Your task to perform on an android device: turn off location Image 0: 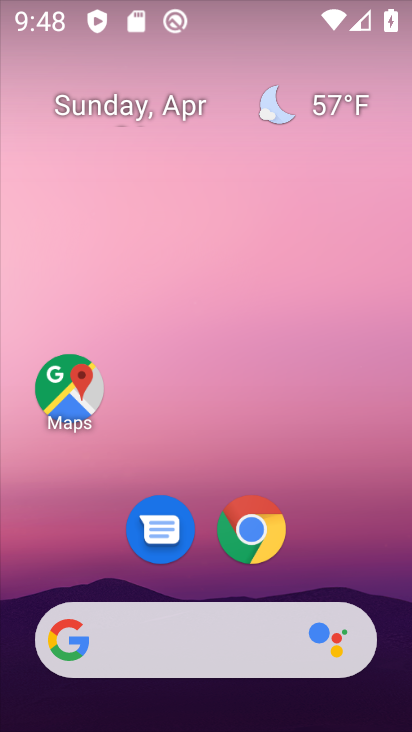
Step 0: drag from (322, 569) to (213, 69)
Your task to perform on an android device: turn off location Image 1: 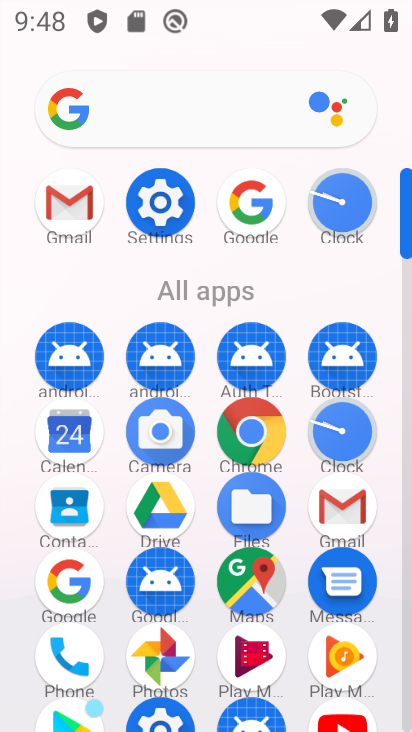
Step 1: click (166, 213)
Your task to perform on an android device: turn off location Image 2: 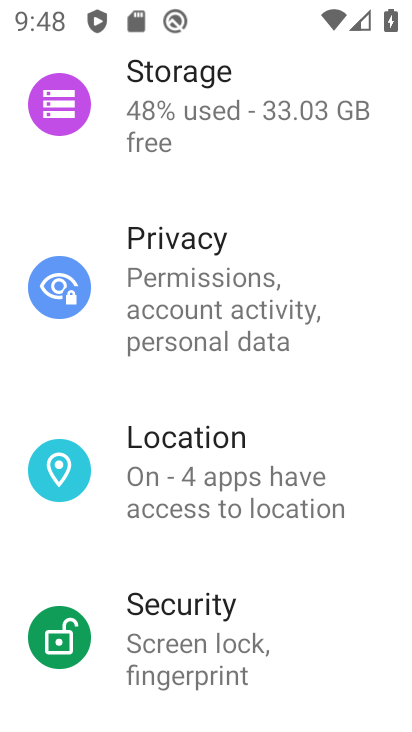
Step 2: click (223, 472)
Your task to perform on an android device: turn off location Image 3: 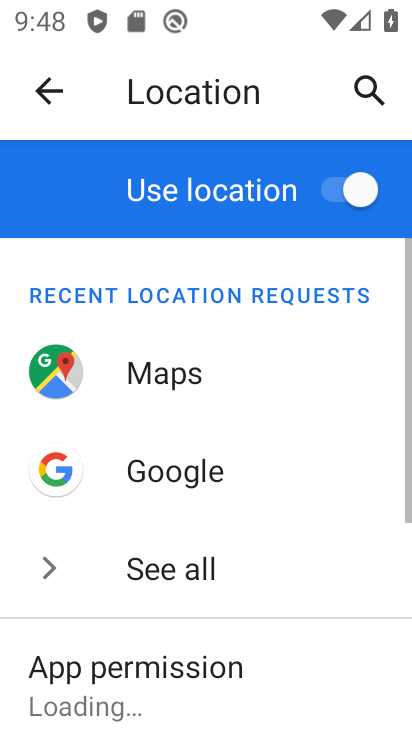
Step 3: click (343, 182)
Your task to perform on an android device: turn off location Image 4: 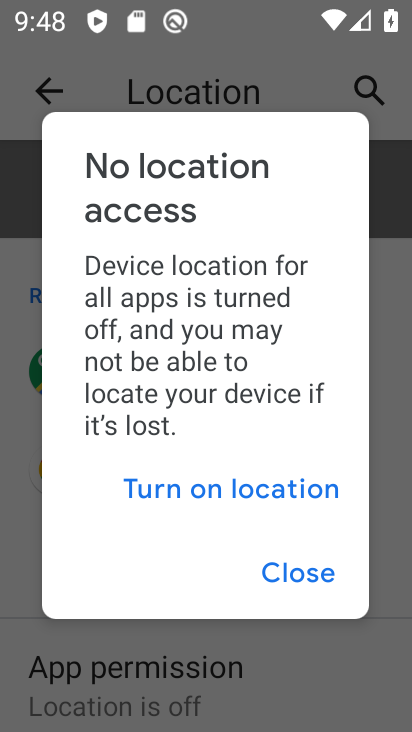
Step 4: task complete